Your task to perform on an android device: see tabs open on other devices in the chrome app Image 0: 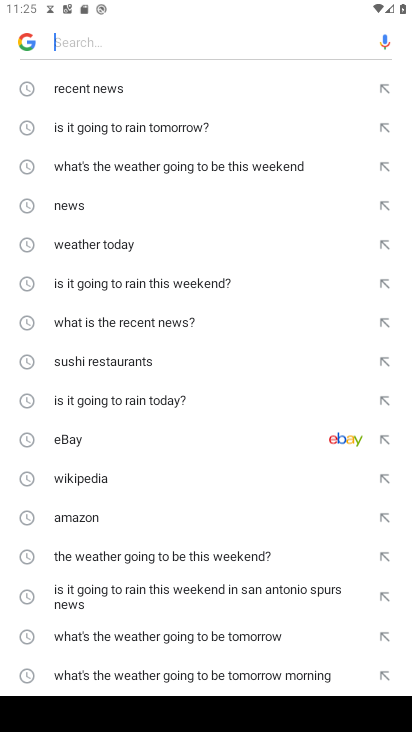
Step 0: press home button
Your task to perform on an android device: see tabs open on other devices in the chrome app Image 1: 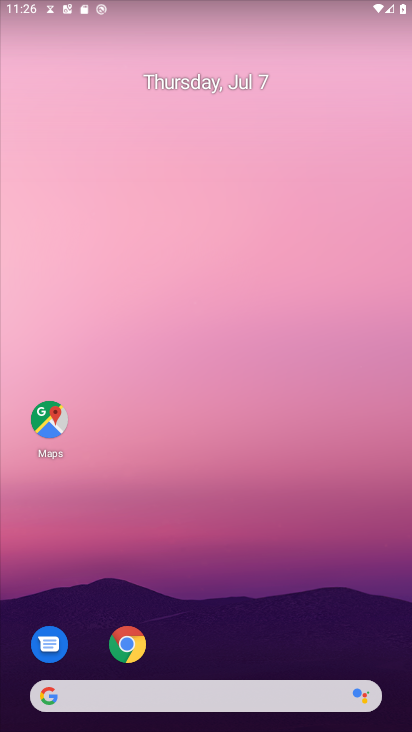
Step 1: click (113, 644)
Your task to perform on an android device: see tabs open on other devices in the chrome app Image 2: 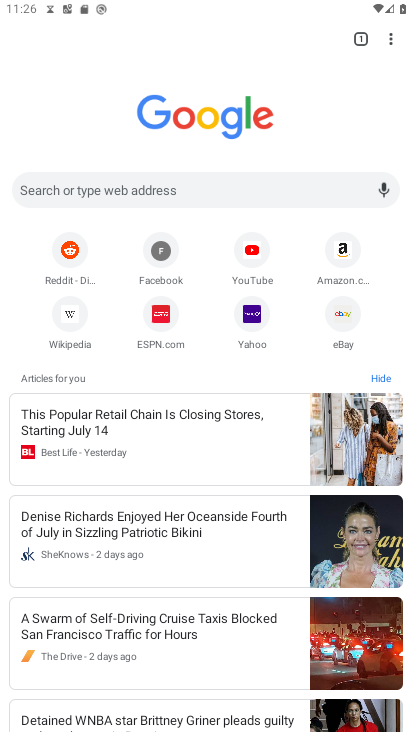
Step 2: task complete